Your task to perform on an android device: Open calendar and show me the second week of next month Image 0: 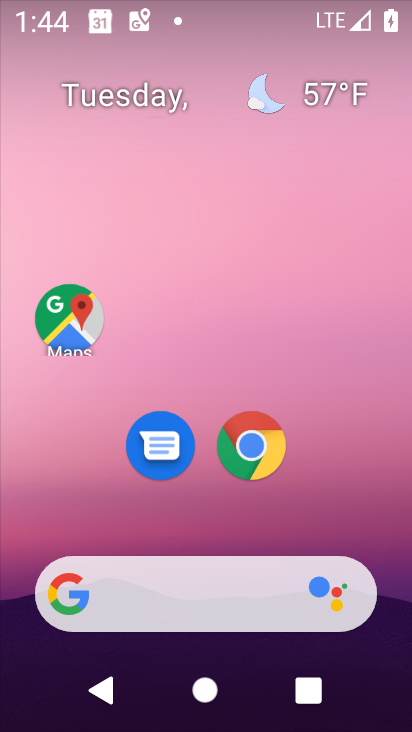
Step 0: click (352, 105)
Your task to perform on an android device: Open calendar and show me the second week of next month Image 1: 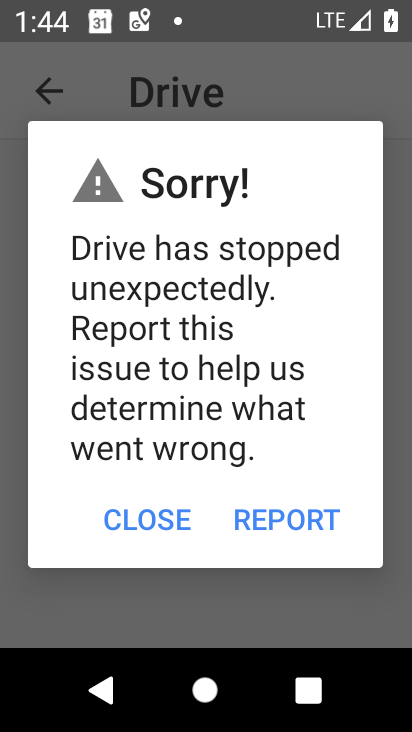
Step 1: press home button
Your task to perform on an android device: Open calendar and show me the second week of next month Image 2: 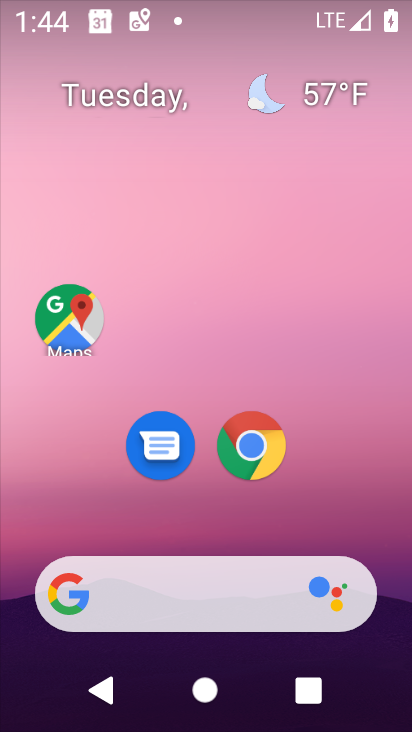
Step 2: drag from (354, 511) to (393, 203)
Your task to perform on an android device: Open calendar and show me the second week of next month Image 3: 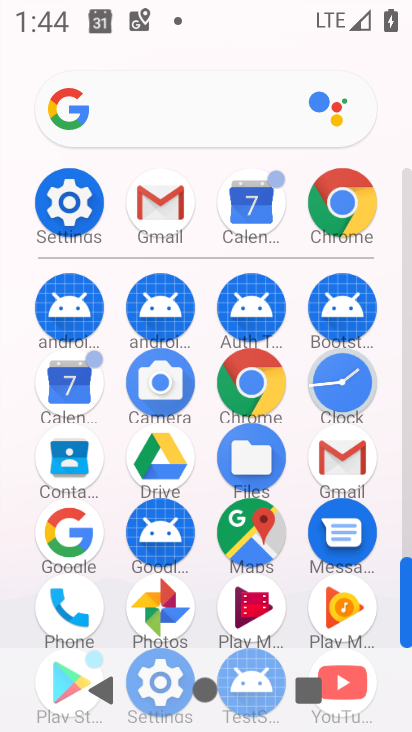
Step 3: click (60, 380)
Your task to perform on an android device: Open calendar and show me the second week of next month Image 4: 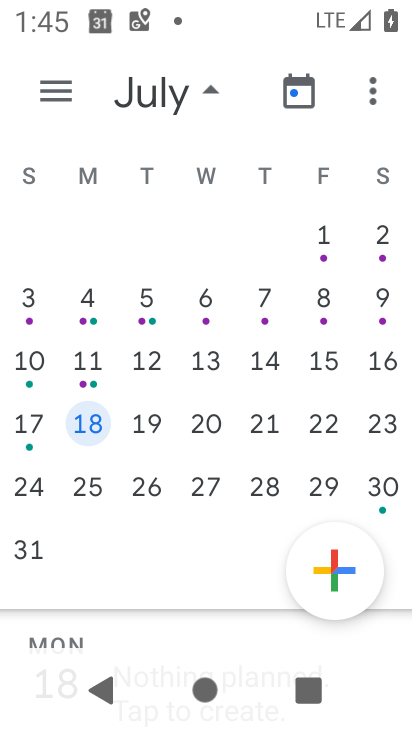
Step 4: click (94, 351)
Your task to perform on an android device: Open calendar and show me the second week of next month Image 5: 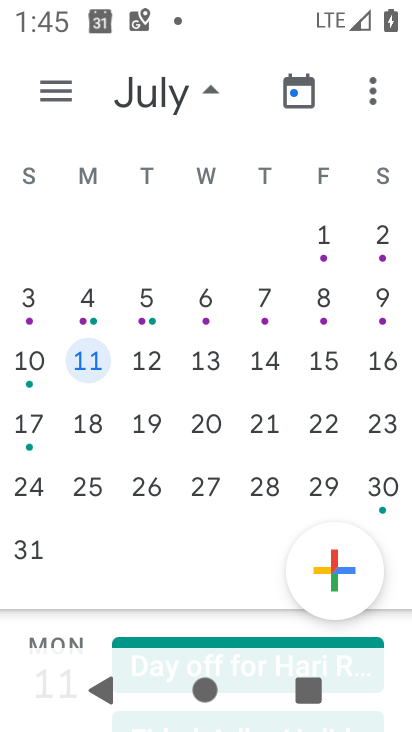
Step 5: task complete